Your task to perform on an android device: Check the news Image 0: 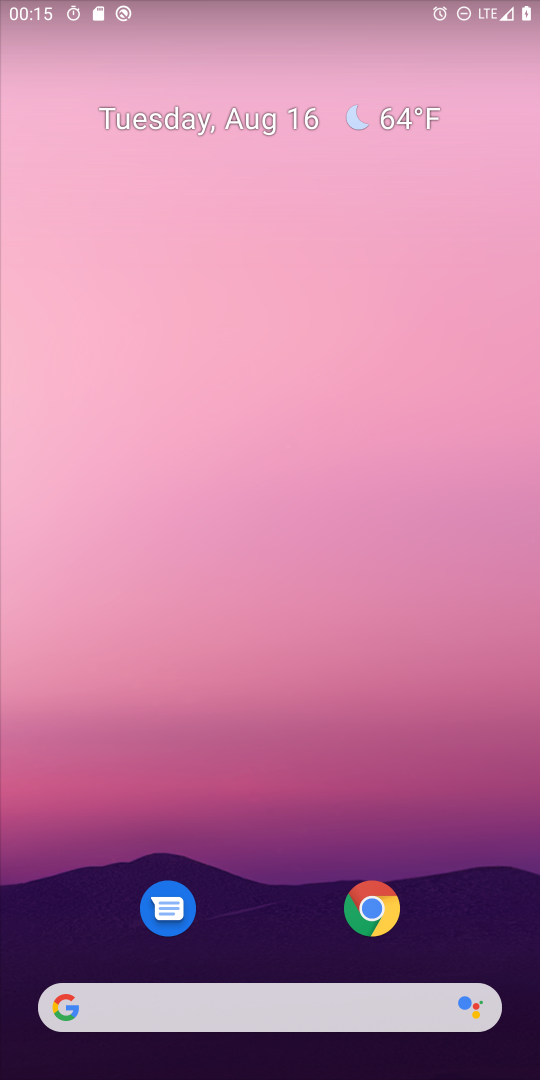
Step 0: click (76, 1012)
Your task to perform on an android device: Check the news Image 1: 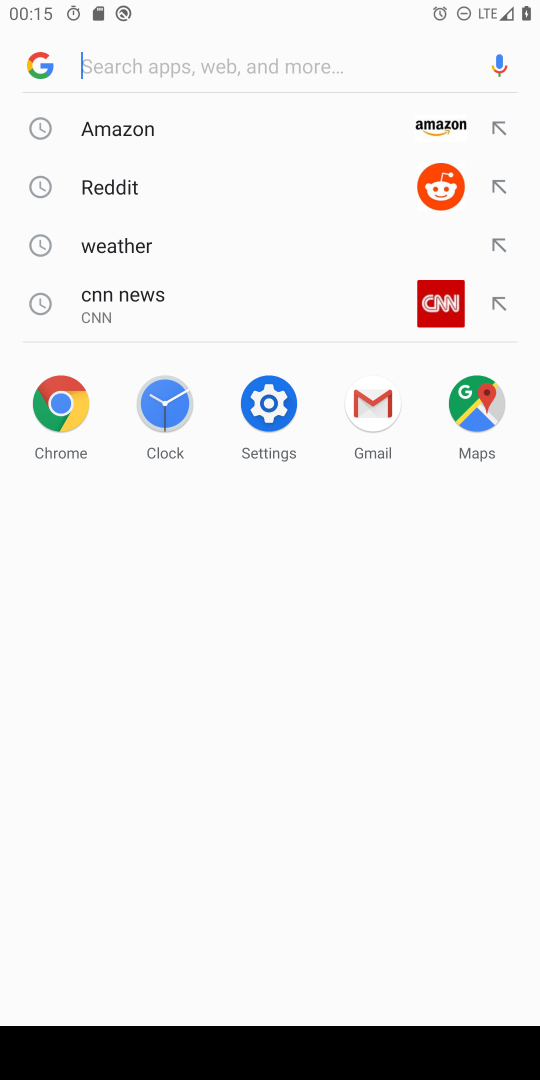
Step 1: click (41, 79)
Your task to perform on an android device: Check the news Image 2: 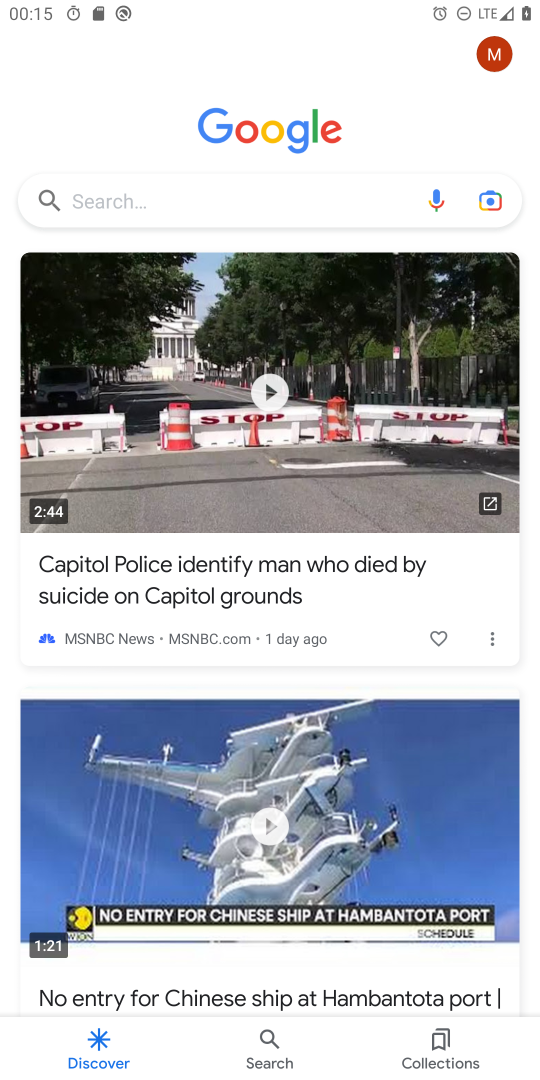
Step 2: task complete